Your task to perform on an android device: add a label to a message in the gmail app Image 0: 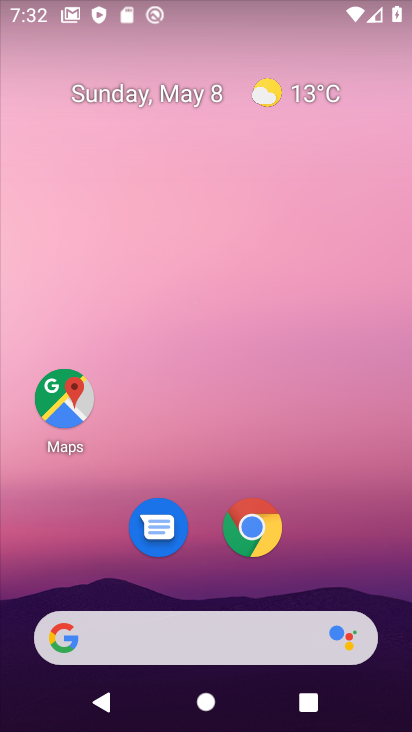
Step 0: drag from (175, 594) to (292, 64)
Your task to perform on an android device: add a label to a message in the gmail app Image 1: 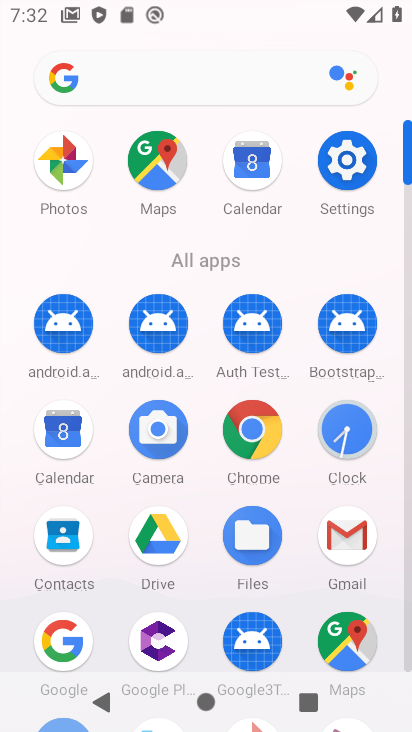
Step 1: click (350, 531)
Your task to perform on an android device: add a label to a message in the gmail app Image 2: 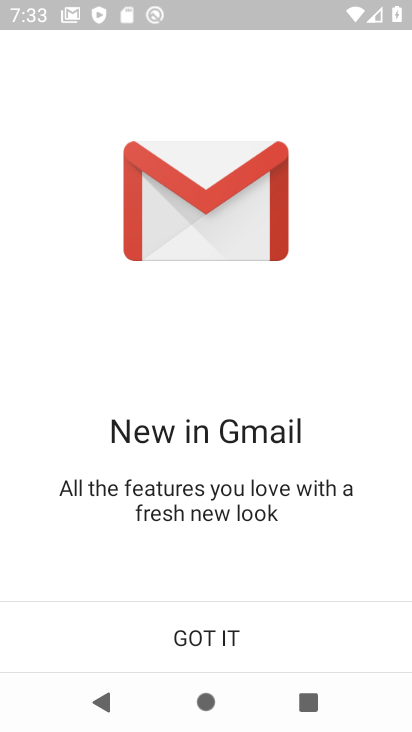
Step 2: click (189, 639)
Your task to perform on an android device: add a label to a message in the gmail app Image 3: 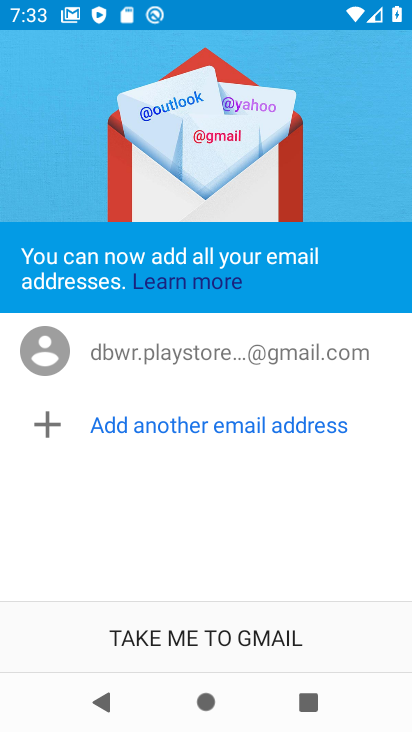
Step 3: click (189, 639)
Your task to perform on an android device: add a label to a message in the gmail app Image 4: 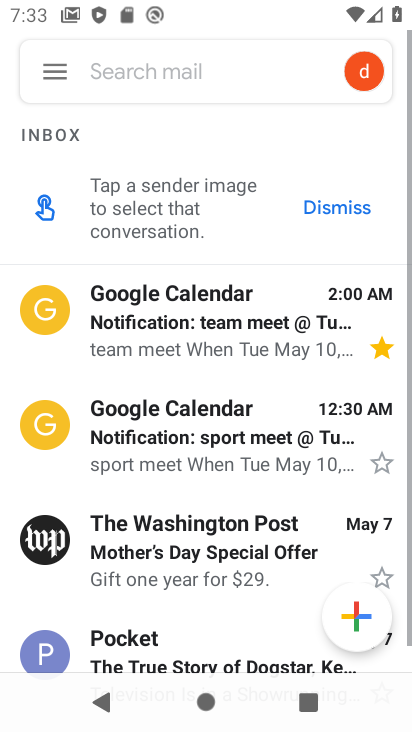
Step 4: click (115, 343)
Your task to perform on an android device: add a label to a message in the gmail app Image 5: 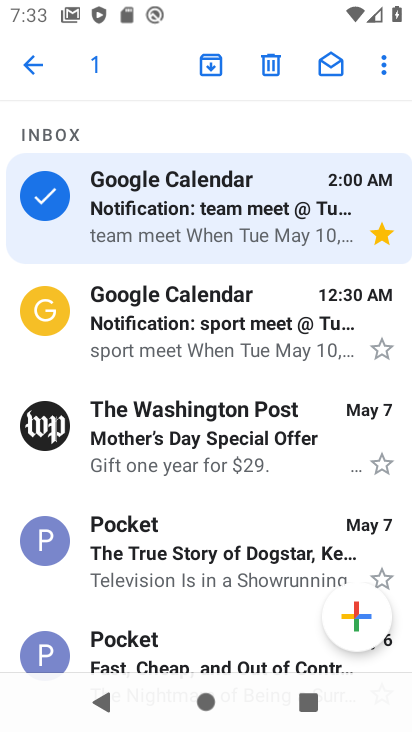
Step 5: click (371, 66)
Your task to perform on an android device: add a label to a message in the gmail app Image 6: 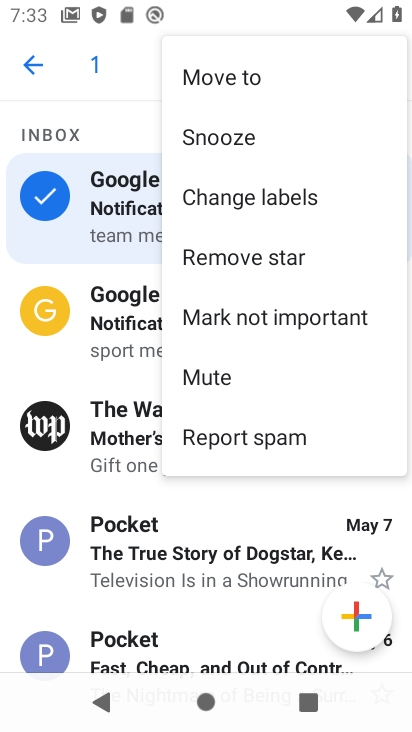
Step 6: click (276, 202)
Your task to perform on an android device: add a label to a message in the gmail app Image 7: 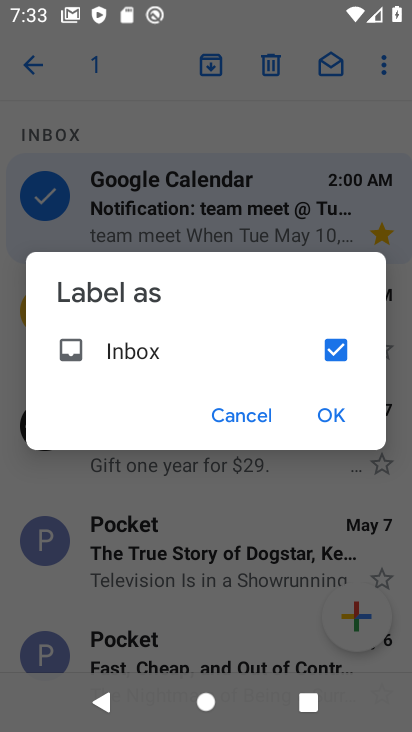
Step 7: click (333, 420)
Your task to perform on an android device: add a label to a message in the gmail app Image 8: 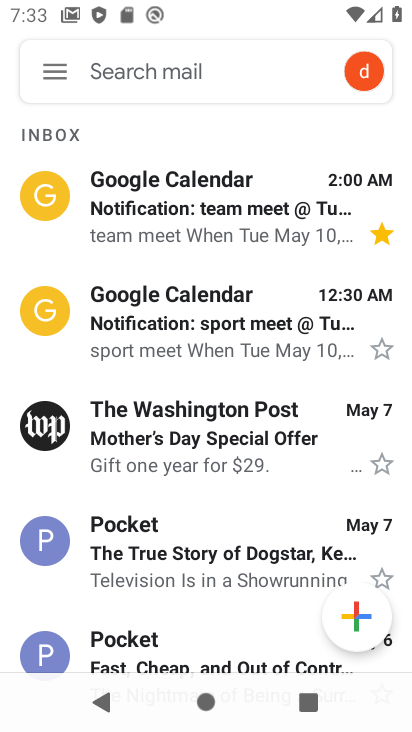
Step 8: task complete